Your task to perform on an android device: Search for seafood restaurants on Google Maps Image 0: 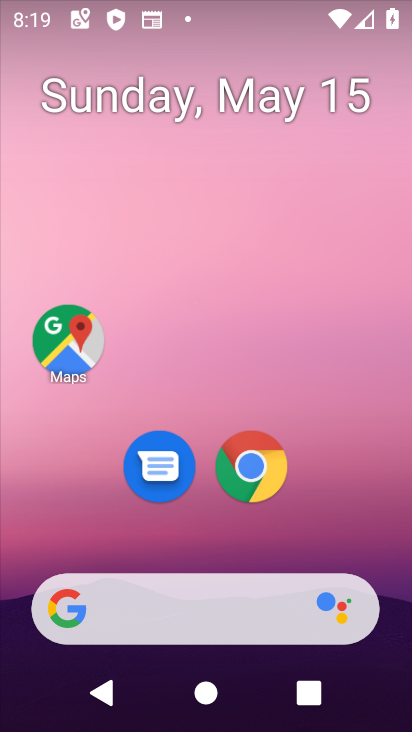
Step 0: click (91, 344)
Your task to perform on an android device: Search for seafood restaurants on Google Maps Image 1: 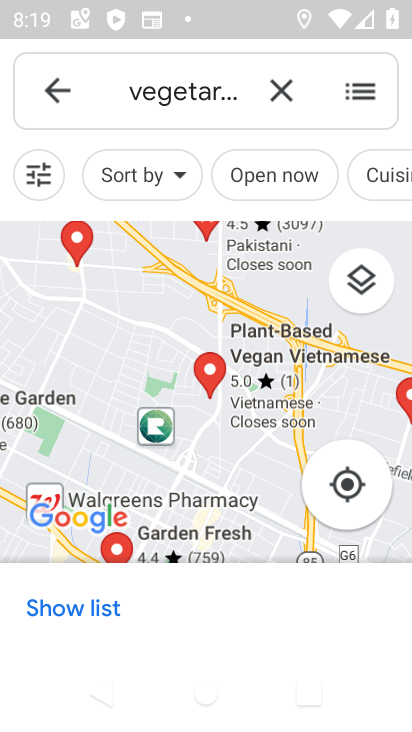
Step 1: click (272, 90)
Your task to perform on an android device: Search for seafood restaurants on Google Maps Image 2: 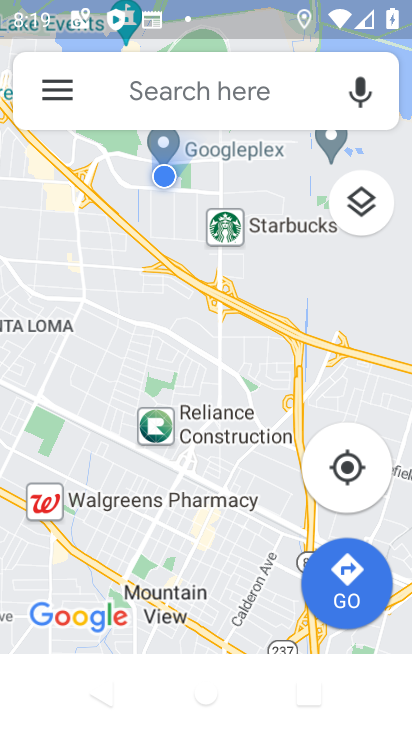
Step 2: click (181, 80)
Your task to perform on an android device: Search for seafood restaurants on Google Maps Image 3: 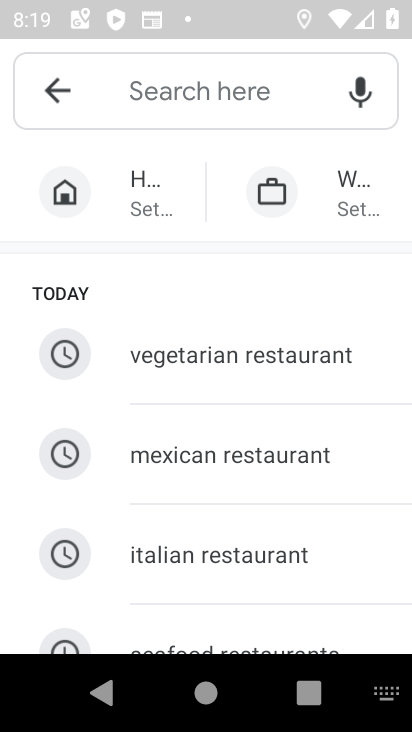
Step 3: drag from (148, 516) to (118, 308)
Your task to perform on an android device: Search for seafood restaurants on Google Maps Image 4: 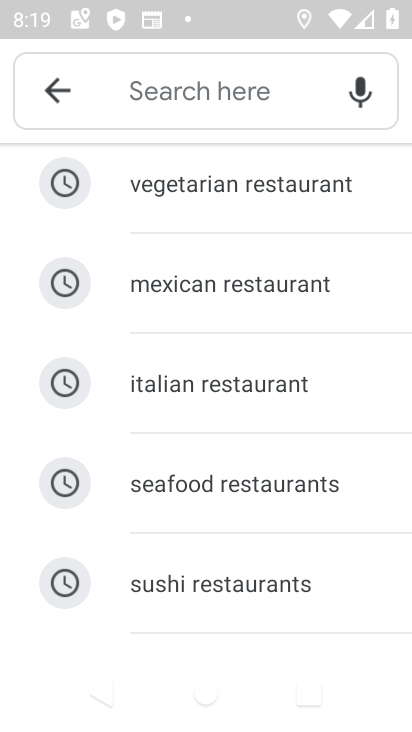
Step 4: click (159, 478)
Your task to perform on an android device: Search for seafood restaurants on Google Maps Image 5: 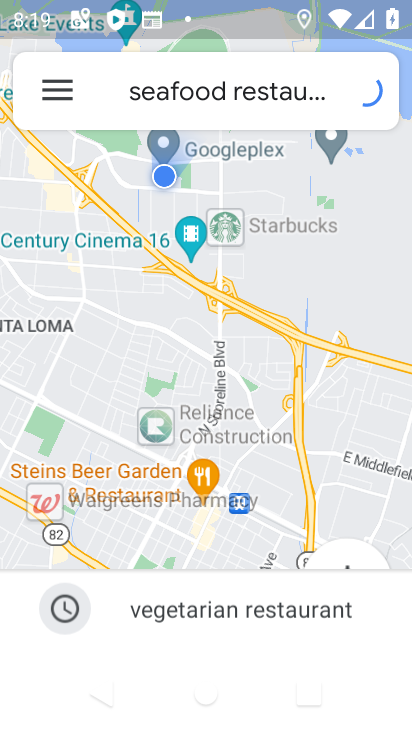
Step 5: task complete